Your task to perform on an android device: turn off picture-in-picture Image 0: 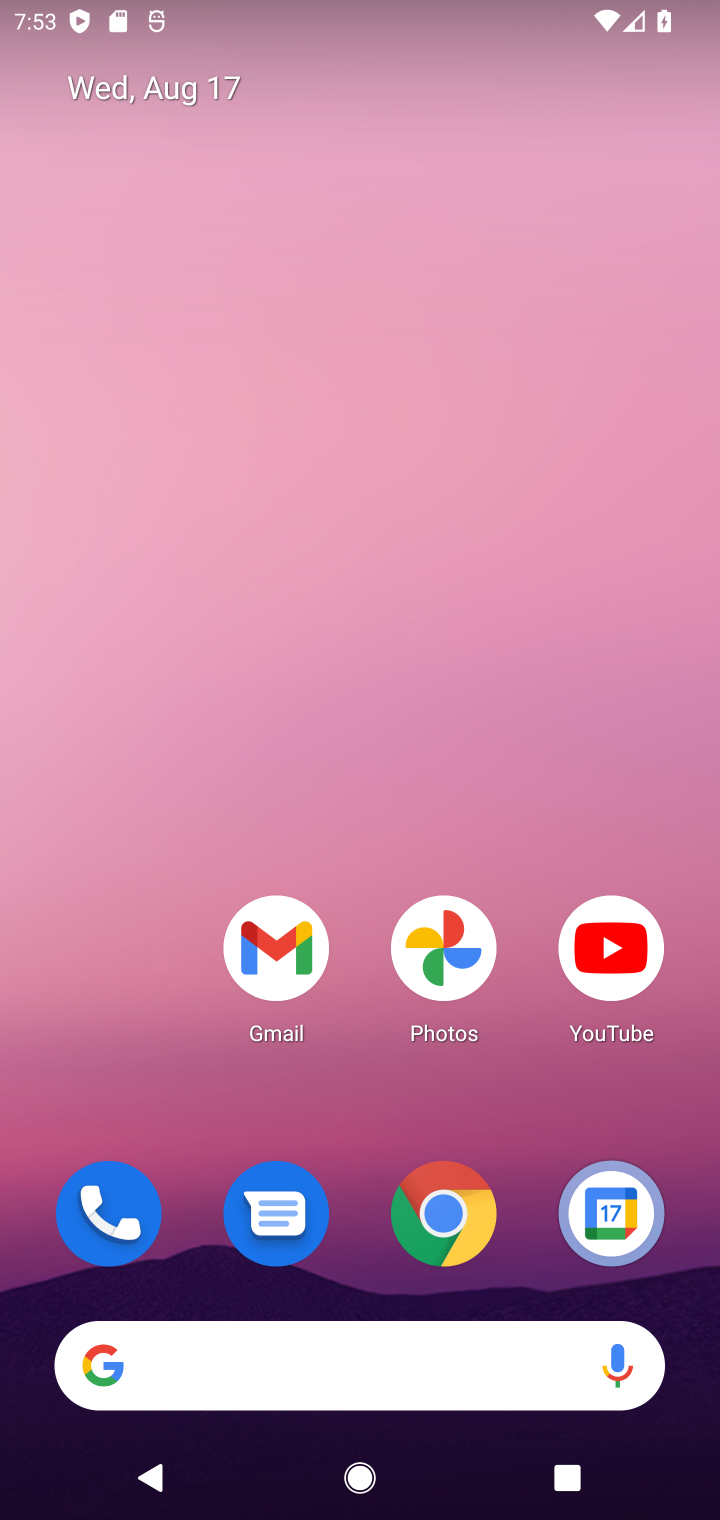
Step 0: drag from (357, 1302) to (14, 767)
Your task to perform on an android device: turn off picture-in-picture Image 1: 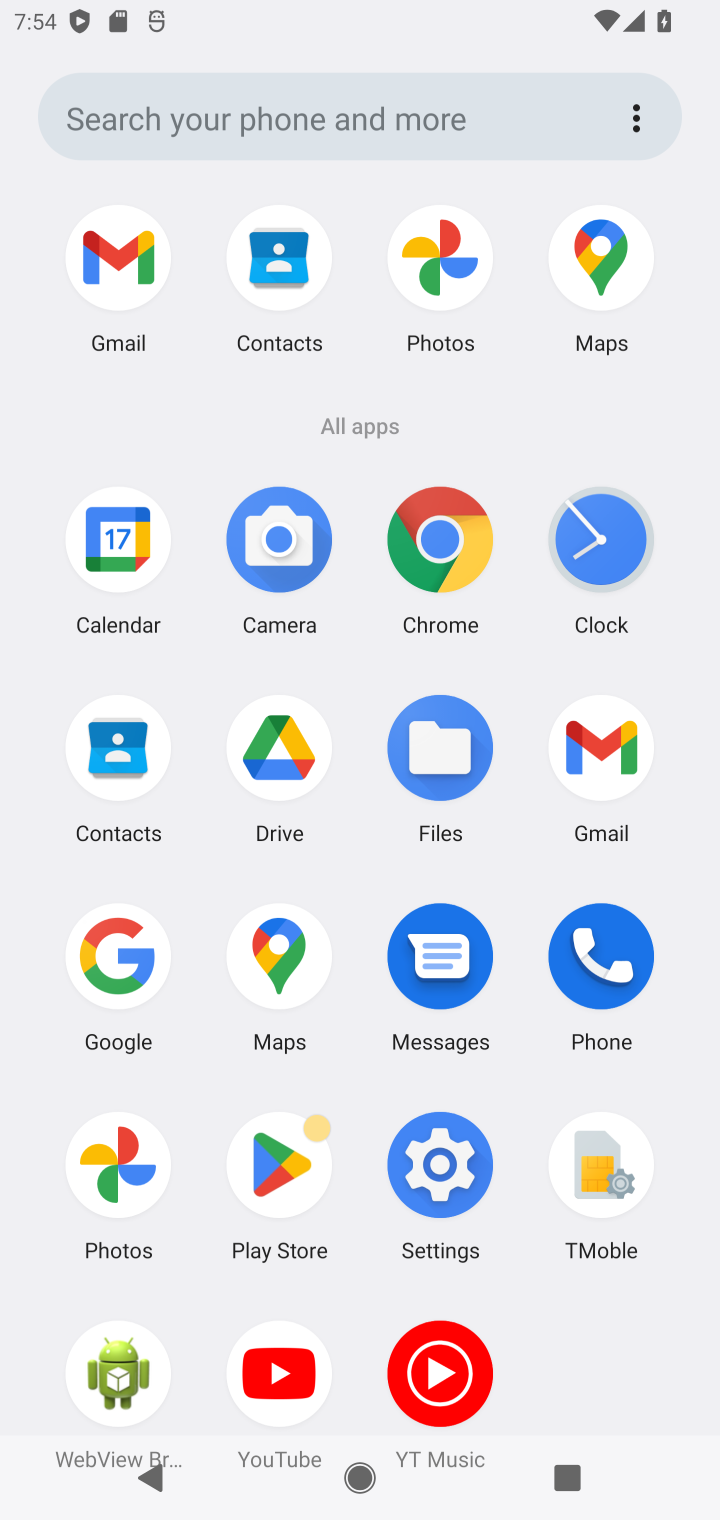
Step 1: click (402, 1215)
Your task to perform on an android device: turn off picture-in-picture Image 2: 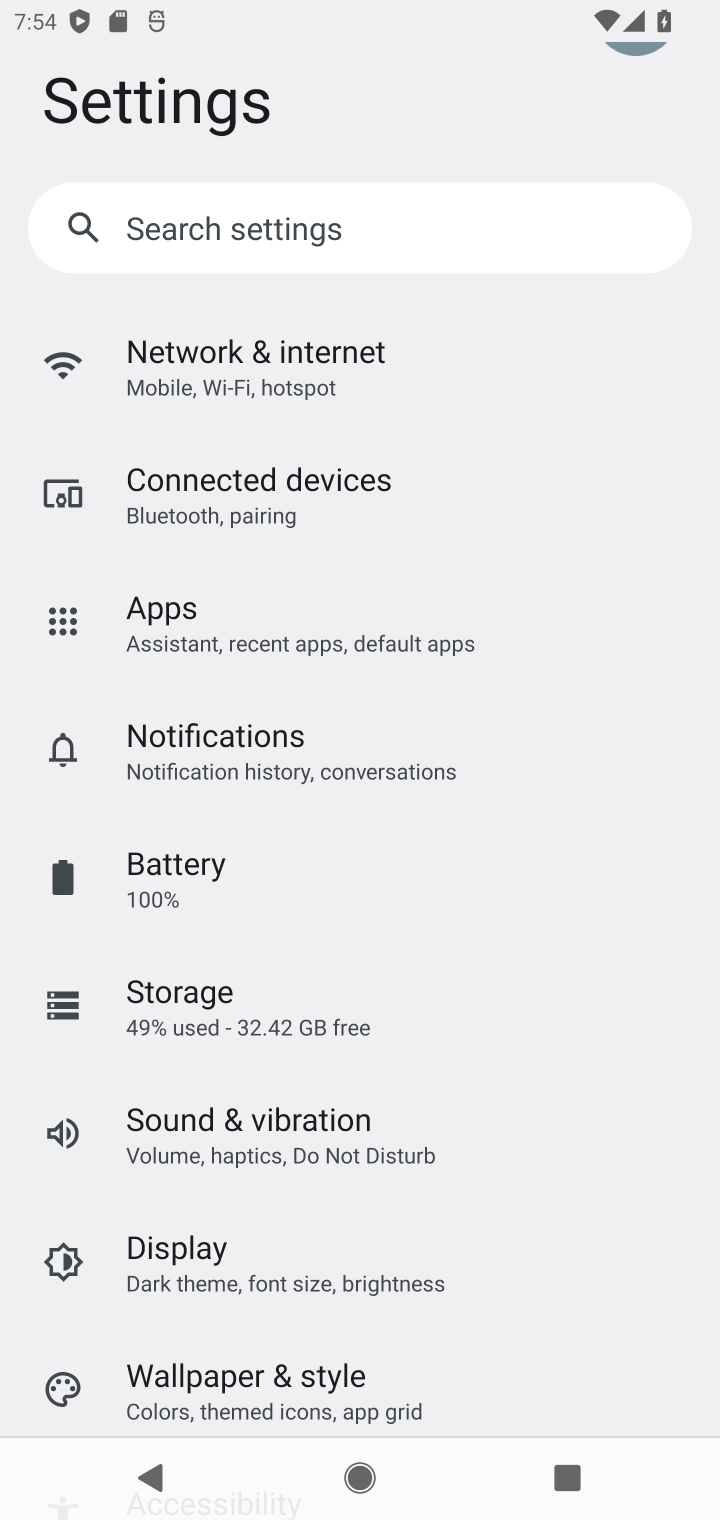
Step 2: drag from (366, 1206) to (421, 432)
Your task to perform on an android device: turn off picture-in-picture Image 3: 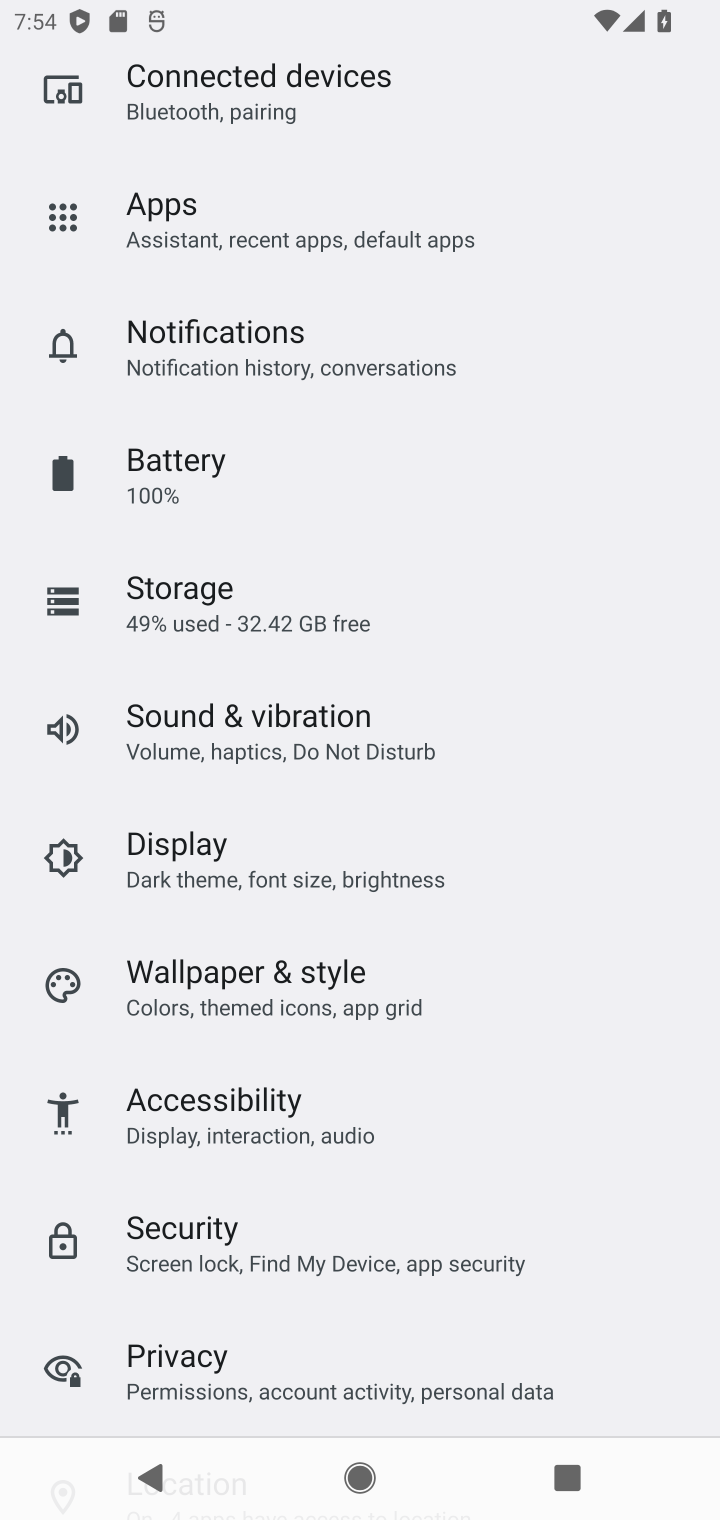
Step 3: drag from (462, 1210) to (454, 399)
Your task to perform on an android device: turn off picture-in-picture Image 4: 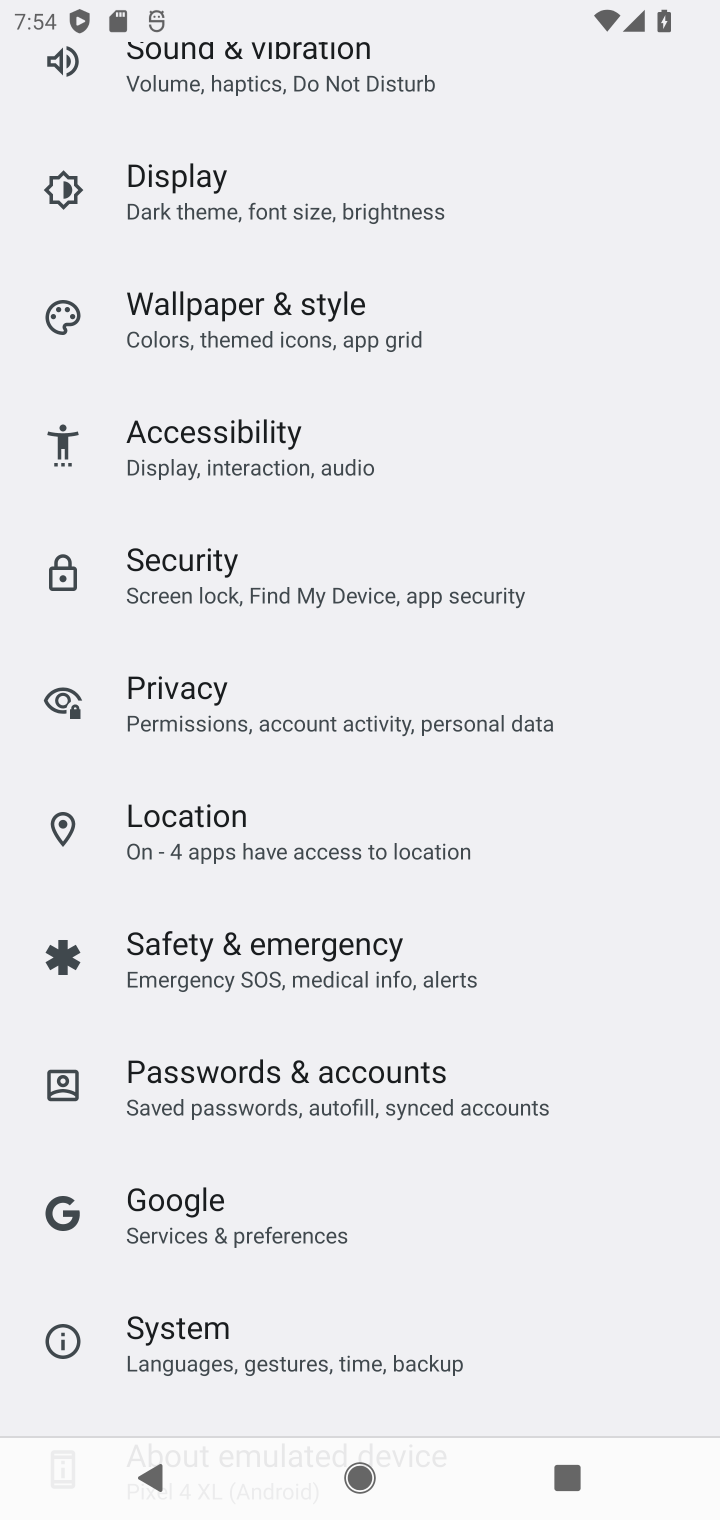
Step 4: click (318, 926)
Your task to perform on an android device: turn off picture-in-picture Image 5: 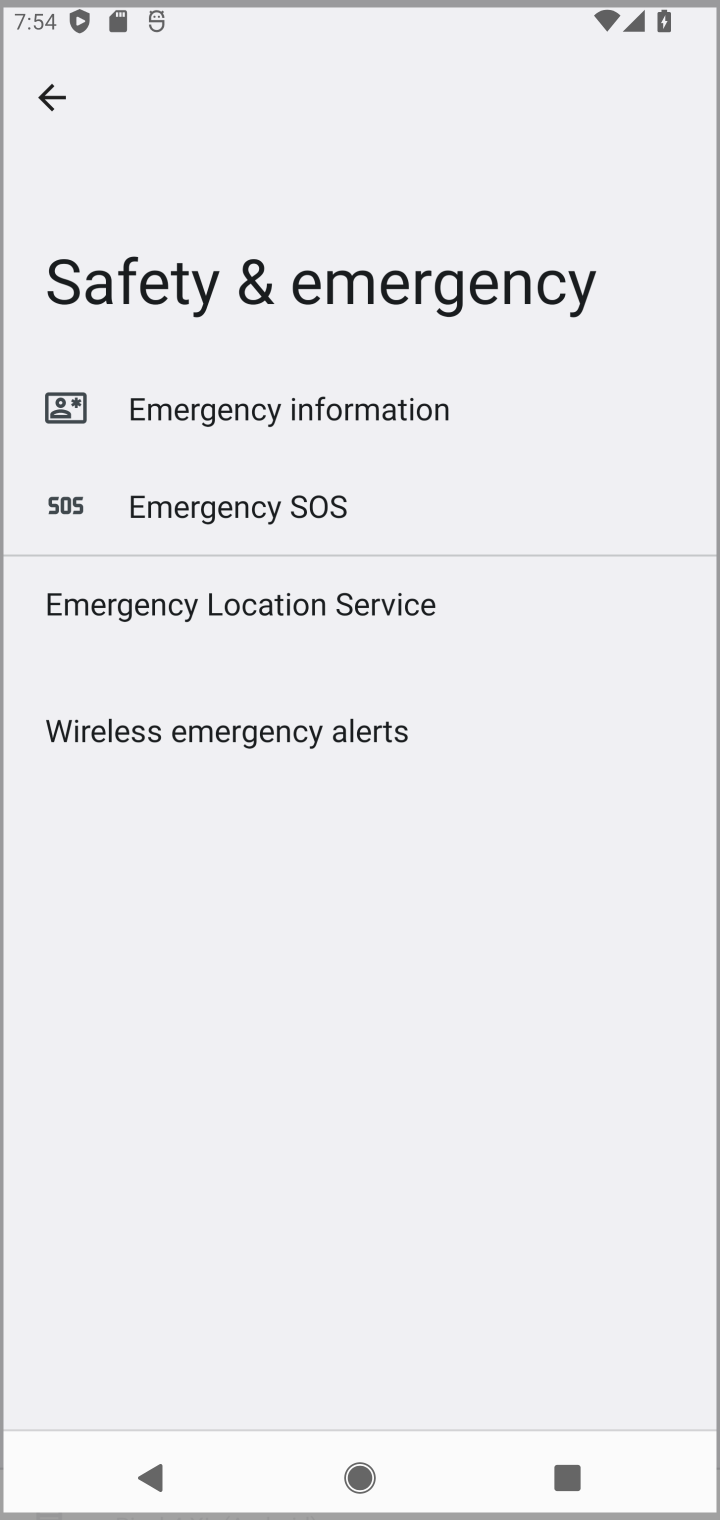
Step 5: task complete